Your task to perform on an android device: snooze an email in the gmail app Image 0: 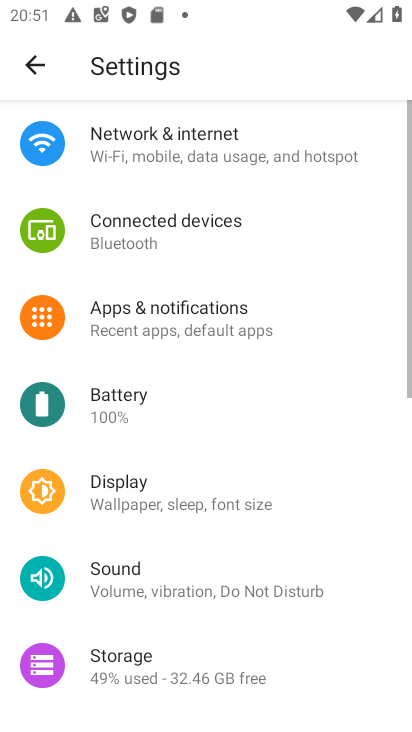
Step 0: press home button
Your task to perform on an android device: snooze an email in the gmail app Image 1: 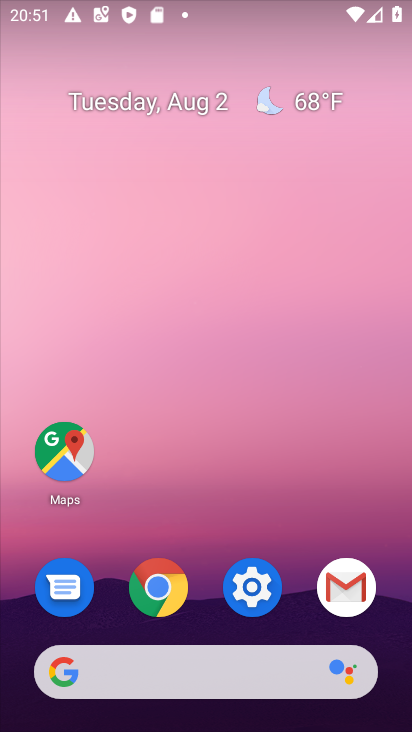
Step 1: click (343, 589)
Your task to perform on an android device: snooze an email in the gmail app Image 2: 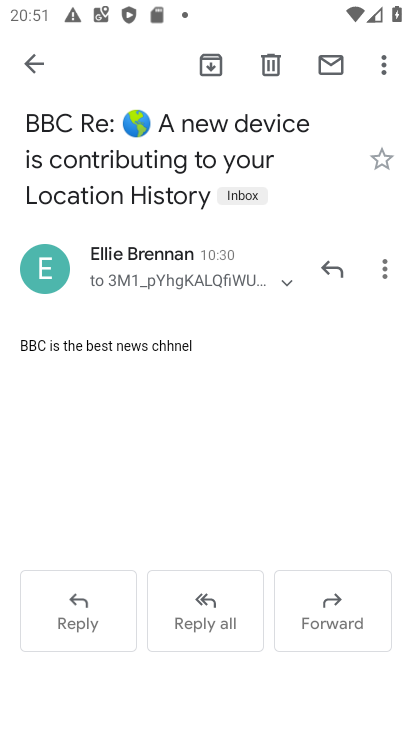
Step 2: click (51, 61)
Your task to perform on an android device: snooze an email in the gmail app Image 3: 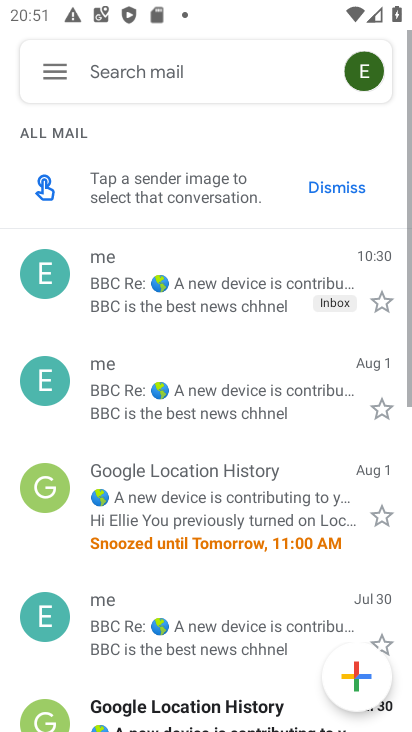
Step 3: click (236, 308)
Your task to perform on an android device: snooze an email in the gmail app Image 4: 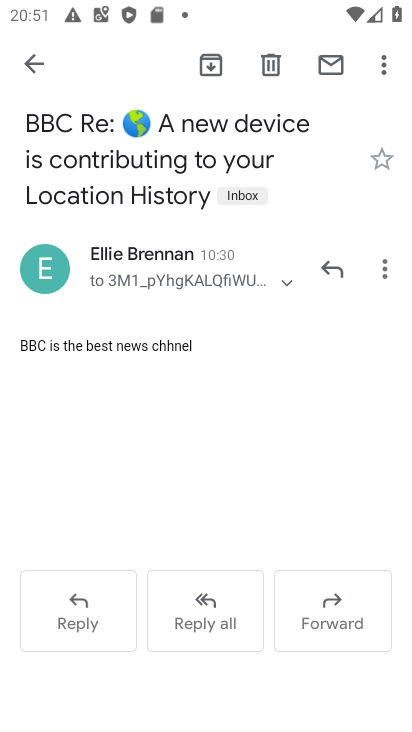
Step 4: click (382, 59)
Your task to perform on an android device: snooze an email in the gmail app Image 5: 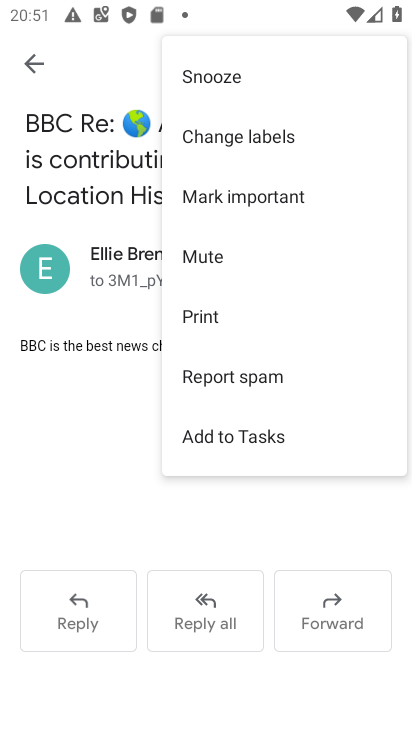
Step 5: click (232, 79)
Your task to perform on an android device: snooze an email in the gmail app Image 6: 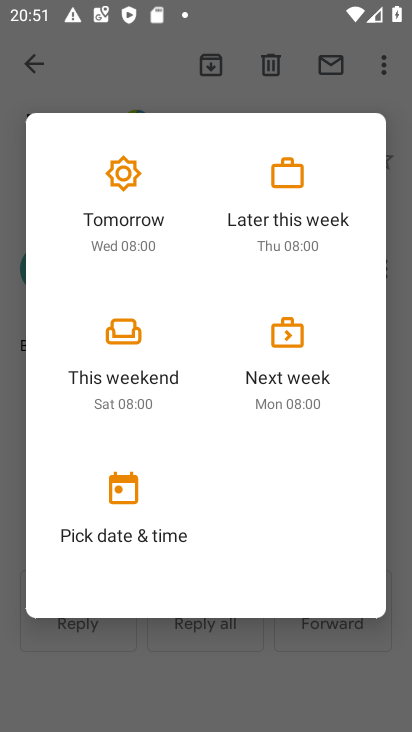
Step 6: click (129, 210)
Your task to perform on an android device: snooze an email in the gmail app Image 7: 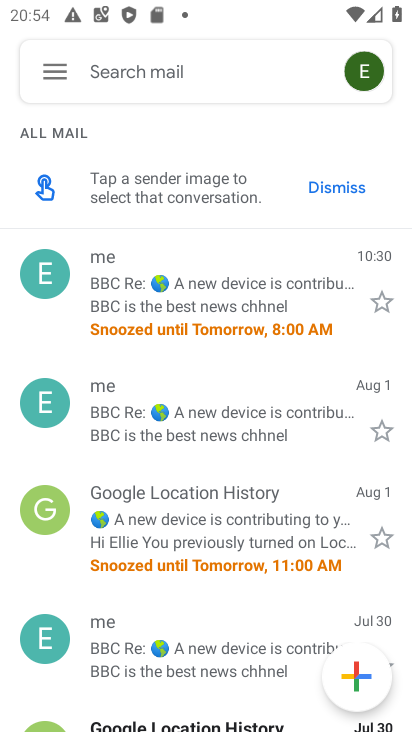
Step 7: task complete